Your task to perform on an android device: Open settings on Google Maps Image 0: 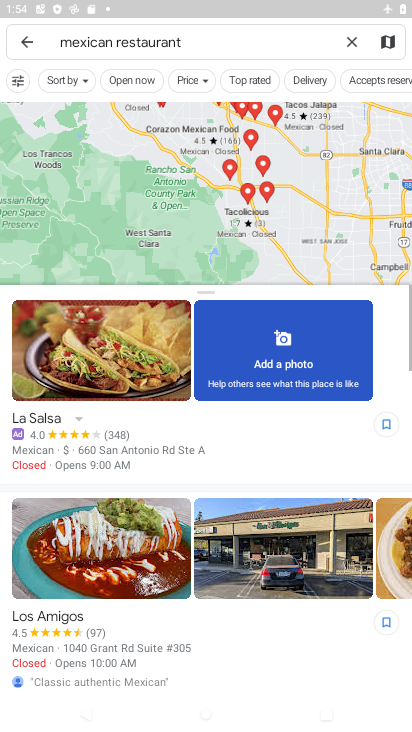
Step 0: press home button
Your task to perform on an android device: Open settings on Google Maps Image 1: 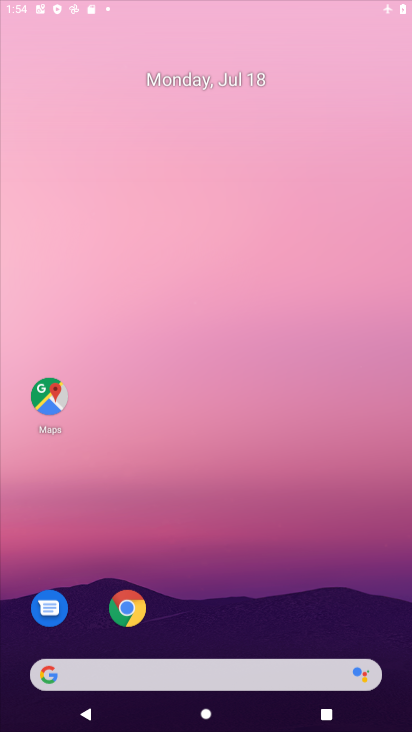
Step 1: drag from (370, 610) to (268, 8)
Your task to perform on an android device: Open settings on Google Maps Image 2: 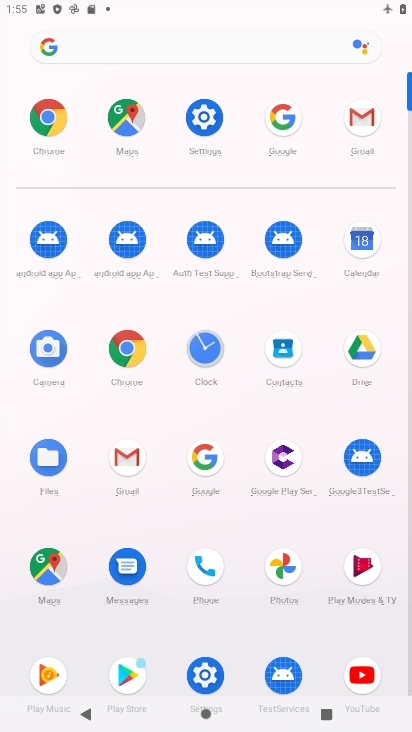
Step 2: click (52, 566)
Your task to perform on an android device: Open settings on Google Maps Image 3: 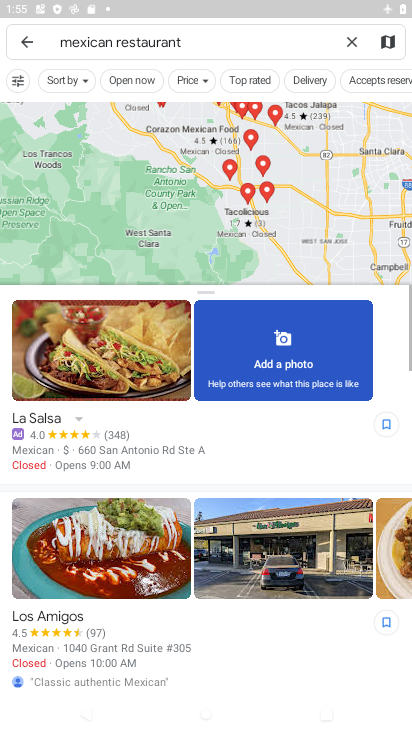
Step 3: click (353, 42)
Your task to perform on an android device: Open settings on Google Maps Image 4: 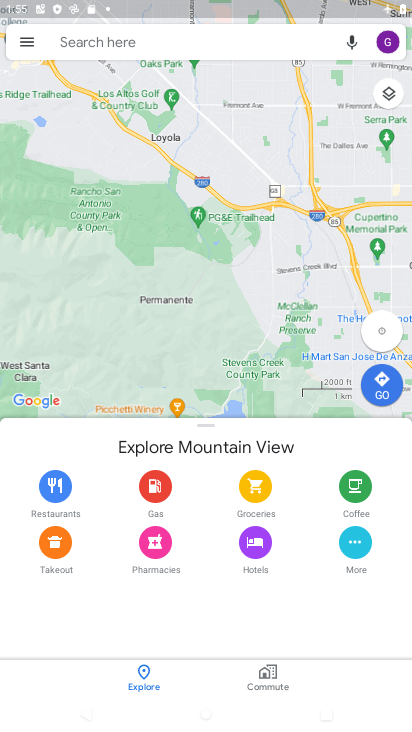
Step 4: click (23, 42)
Your task to perform on an android device: Open settings on Google Maps Image 5: 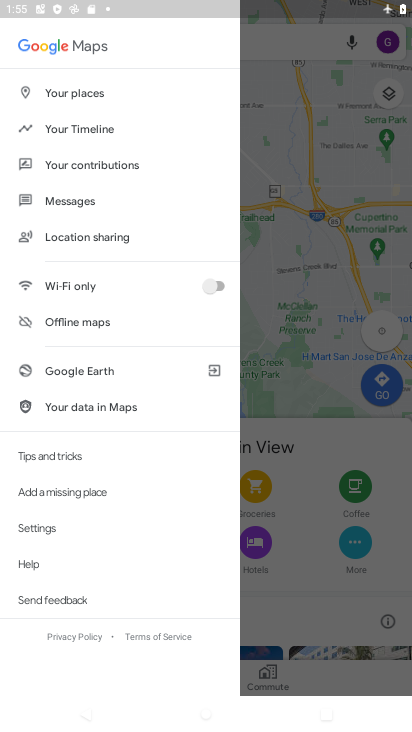
Step 5: click (48, 525)
Your task to perform on an android device: Open settings on Google Maps Image 6: 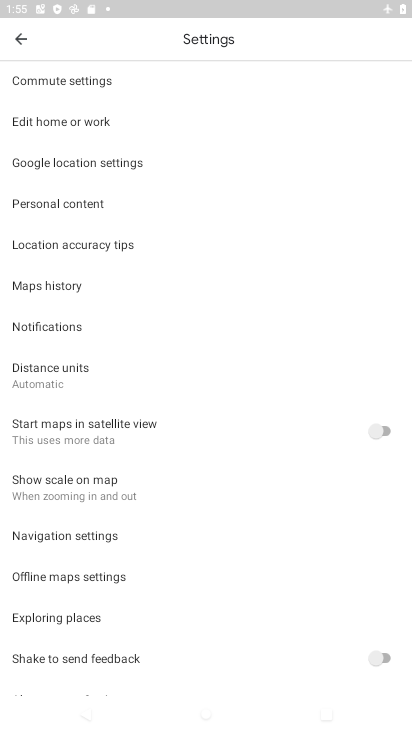
Step 6: task complete